Your task to perform on an android device: Search for vegetarian restaurants on Maps Image 0: 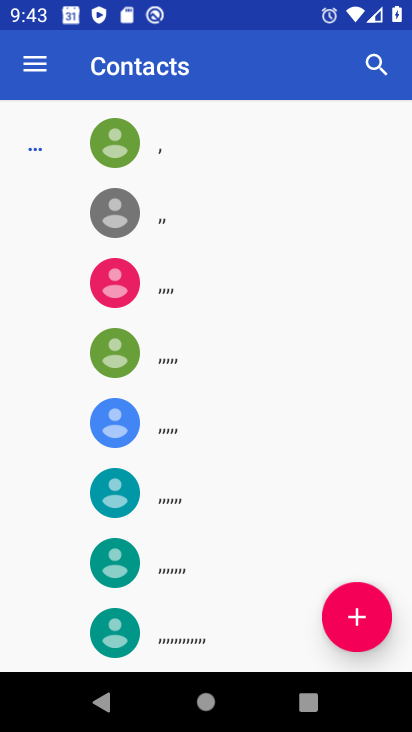
Step 0: press home button
Your task to perform on an android device: Search for vegetarian restaurants on Maps Image 1: 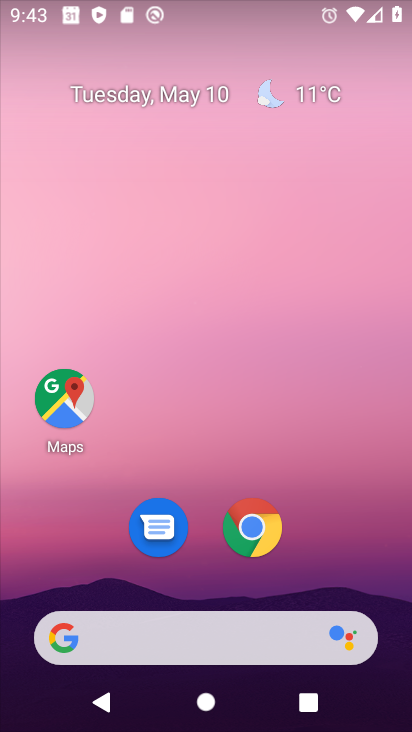
Step 1: drag from (348, 520) to (322, 363)
Your task to perform on an android device: Search for vegetarian restaurants on Maps Image 2: 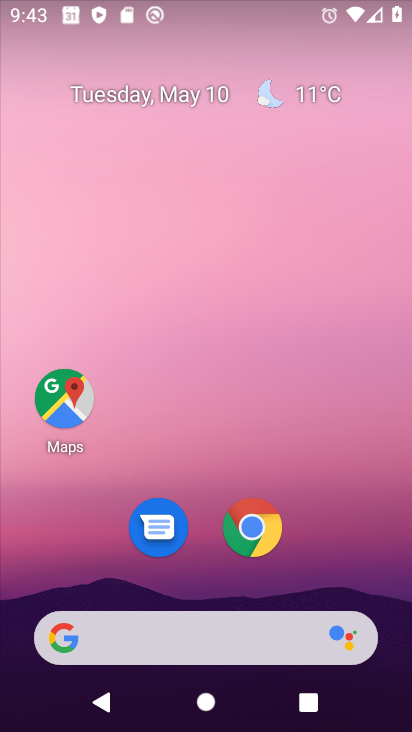
Step 2: click (56, 392)
Your task to perform on an android device: Search for vegetarian restaurants on Maps Image 3: 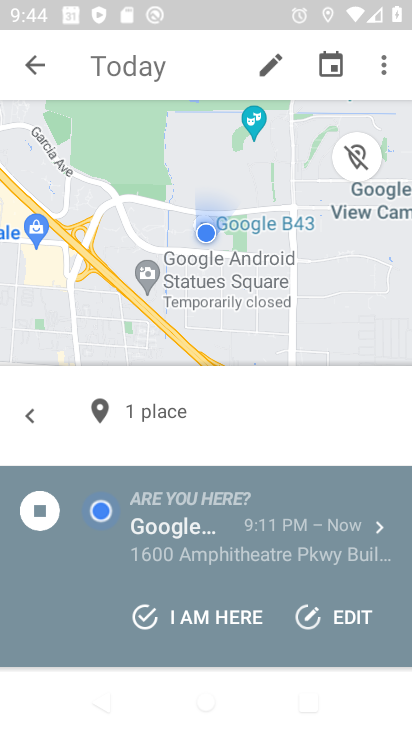
Step 3: click (32, 65)
Your task to perform on an android device: Search for vegetarian restaurants on Maps Image 4: 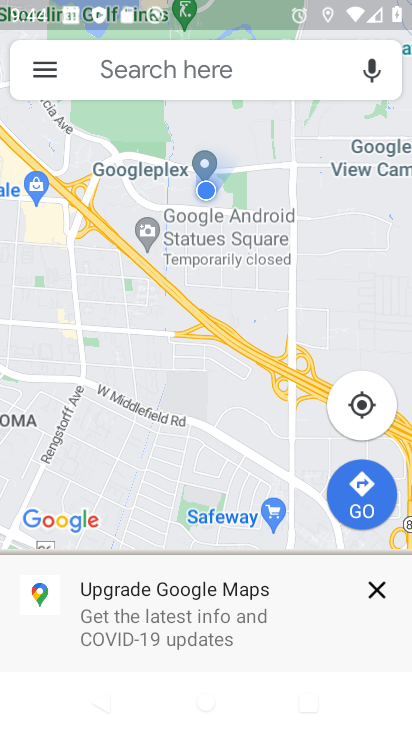
Step 4: click (175, 81)
Your task to perform on an android device: Search for vegetarian restaurants on Maps Image 5: 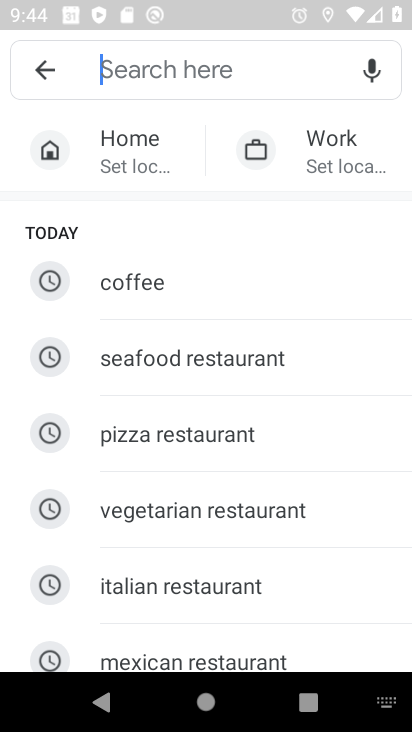
Step 5: click (320, 521)
Your task to perform on an android device: Search for vegetarian restaurants on Maps Image 6: 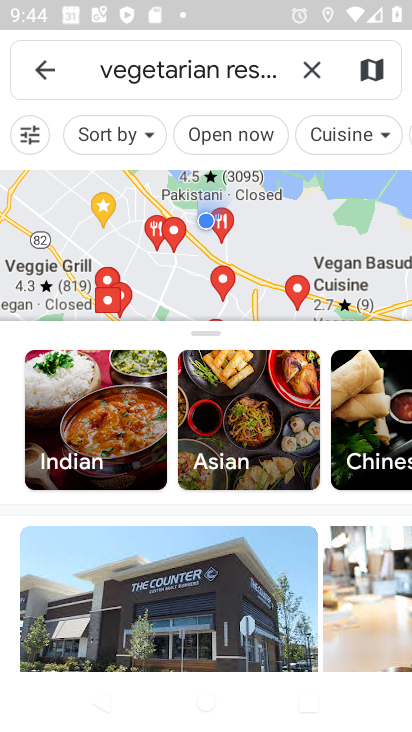
Step 6: task complete